Your task to perform on an android device: Open Amazon Image 0: 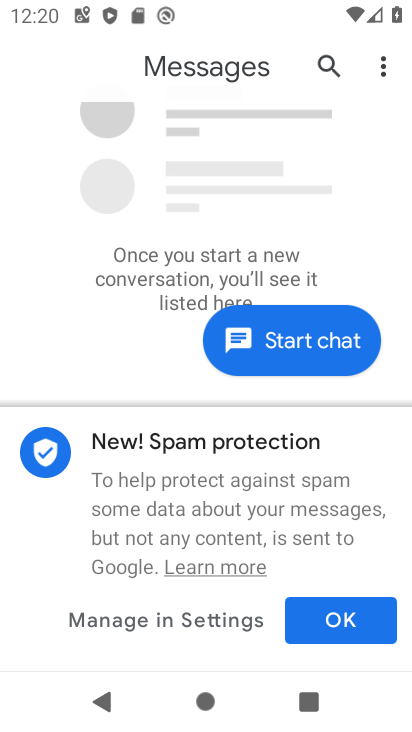
Step 0: press home button
Your task to perform on an android device: Open Amazon Image 1: 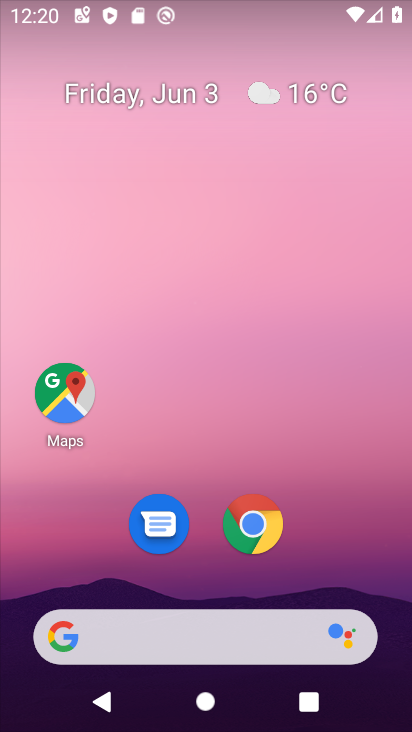
Step 1: click (256, 534)
Your task to perform on an android device: Open Amazon Image 2: 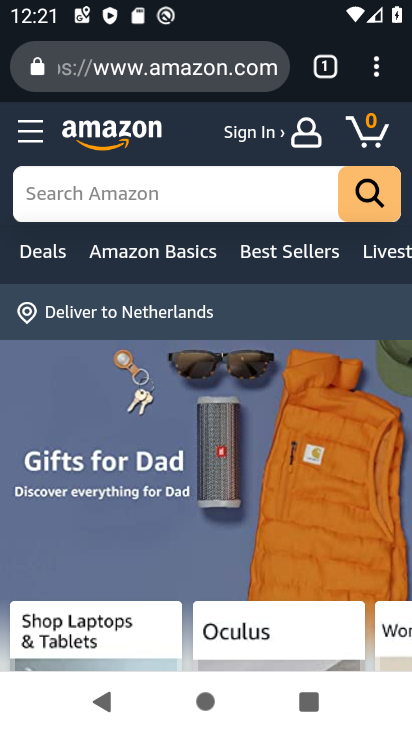
Step 2: task complete